Your task to perform on an android device: open a bookmark in the chrome app Image 0: 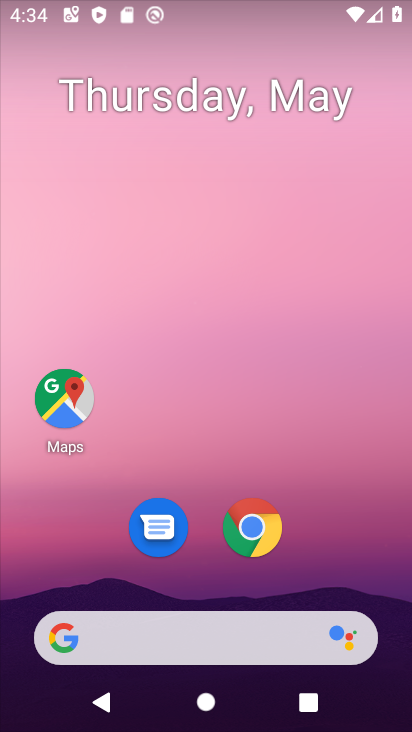
Step 0: drag from (337, 432) to (224, 69)
Your task to perform on an android device: open a bookmark in the chrome app Image 1: 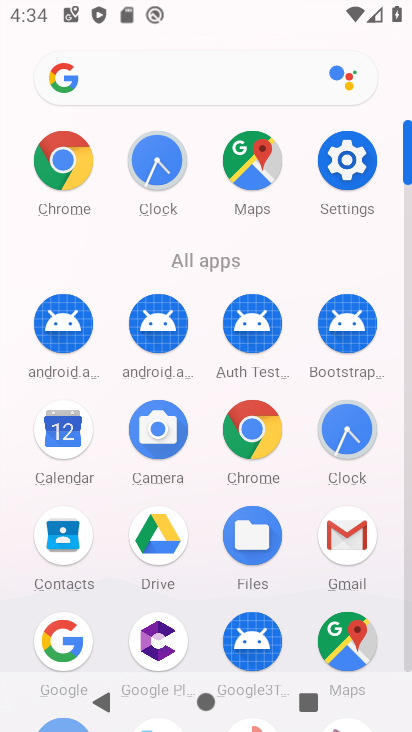
Step 1: click (65, 170)
Your task to perform on an android device: open a bookmark in the chrome app Image 2: 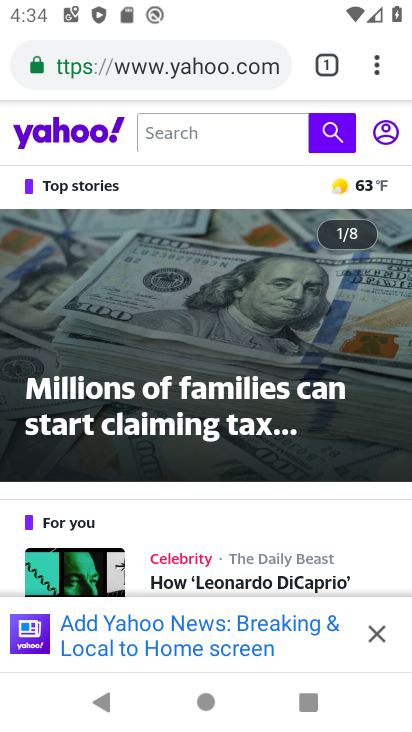
Step 2: drag from (375, 65) to (141, 261)
Your task to perform on an android device: open a bookmark in the chrome app Image 3: 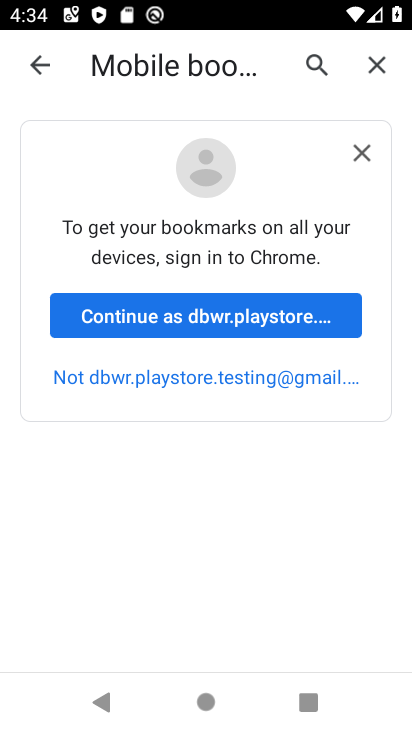
Step 3: click (177, 317)
Your task to perform on an android device: open a bookmark in the chrome app Image 4: 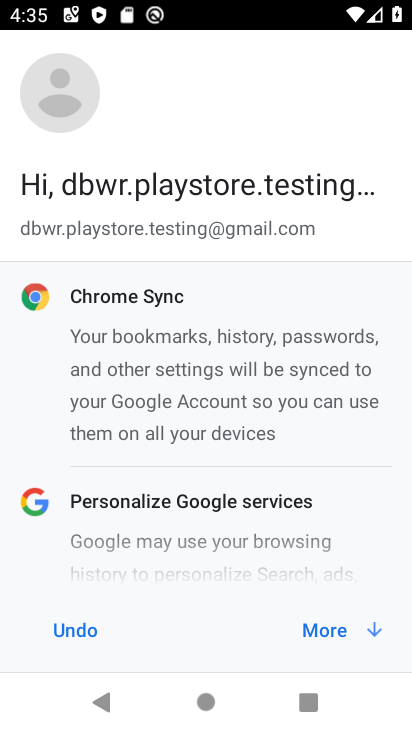
Step 4: click (352, 626)
Your task to perform on an android device: open a bookmark in the chrome app Image 5: 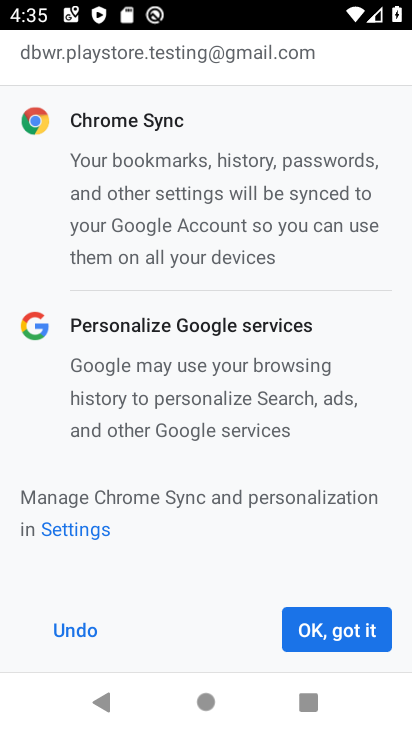
Step 5: click (349, 625)
Your task to perform on an android device: open a bookmark in the chrome app Image 6: 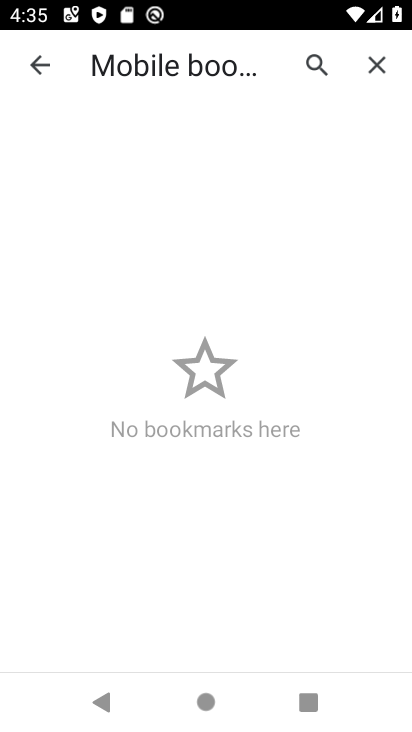
Step 6: task complete